Your task to perform on an android device: change timer sound Image 0: 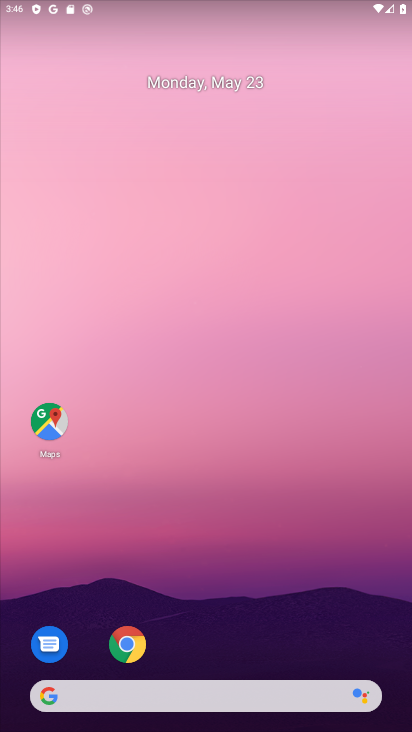
Step 0: click (322, 72)
Your task to perform on an android device: change timer sound Image 1: 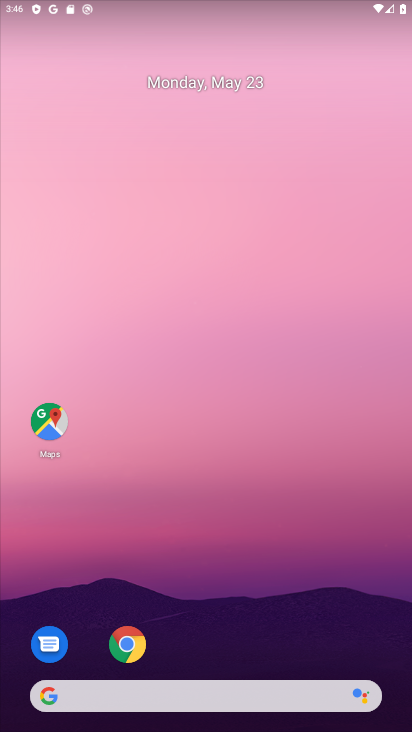
Step 1: drag from (243, 640) to (220, 86)
Your task to perform on an android device: change timer sound Image 2: 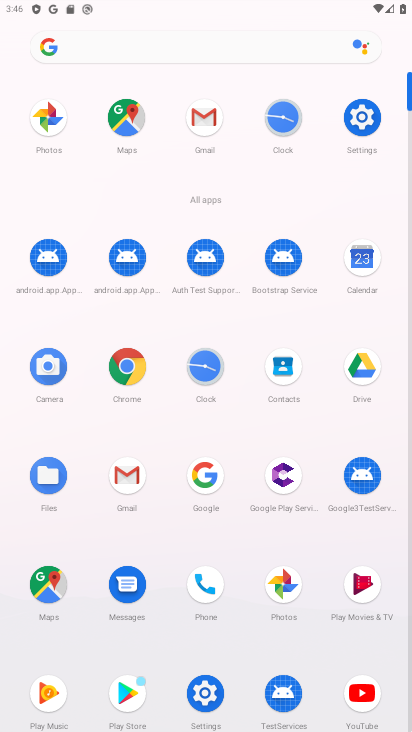
Step 2: click (297, 127)
Your task to perform on an android device: change timer sound Image 3: 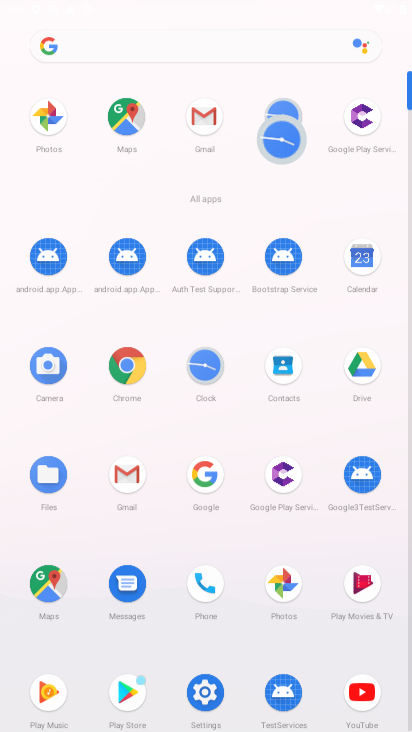
Step 3: click (289, 122)
Your task to perform on an android device: change timer sound Image 4: 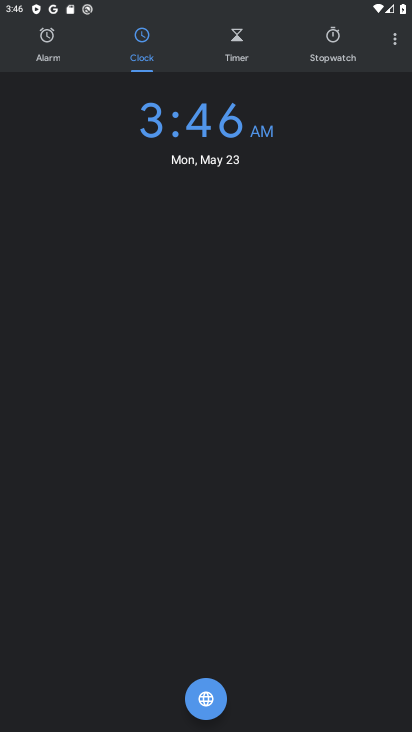
Step 4: click (398, 53)
Your task to perform on an android device: change timer sound Image 5: 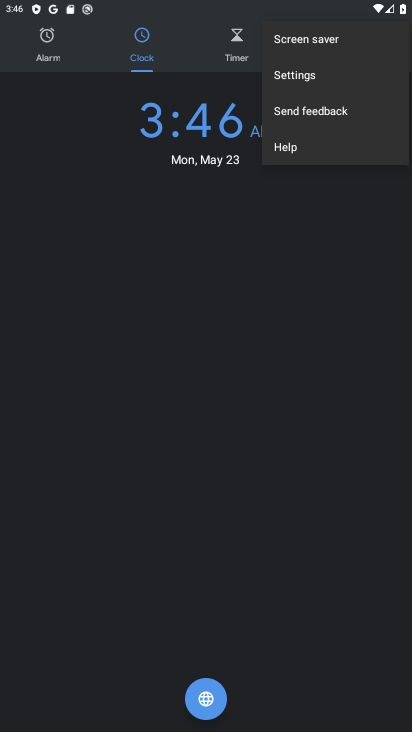
Step 5: click (330, 78)
Your task to perform on an android device: change timer sound Image 6: 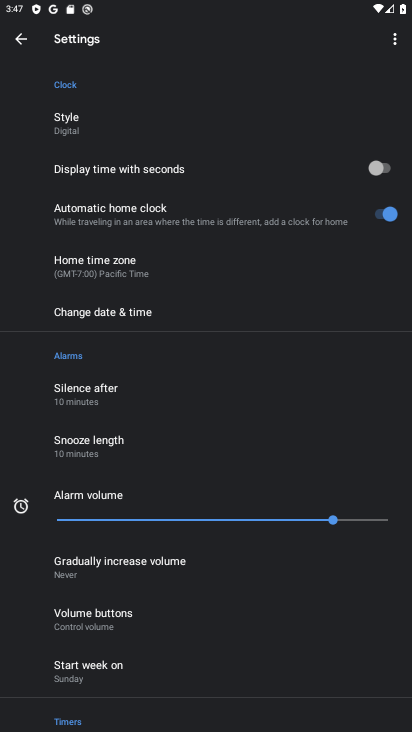
Step 6: drag from (191, 530) to (178, 58)
Your task to perform on an android device: change timer sound Image 7: 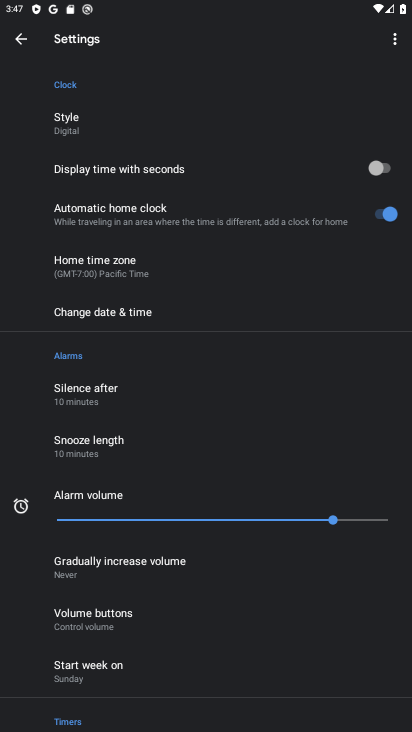
Step 7: drag from (240, 628) to (228, 153)
Your task to perform on an android device: change timer sound Image 8: 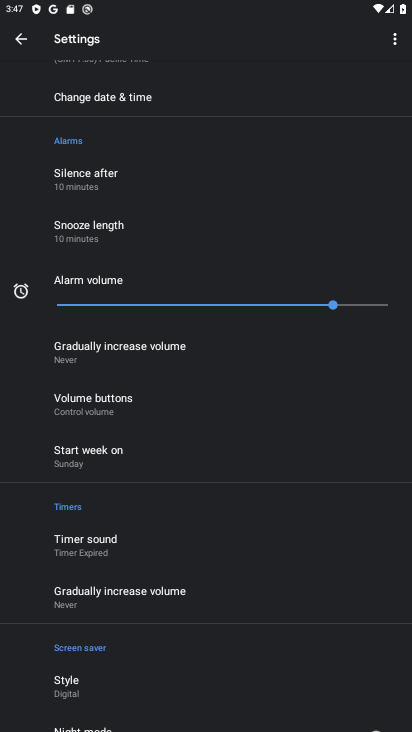
Step 8: click (180, 545)
Your task to perform on an android device: change timer sound Image 9: 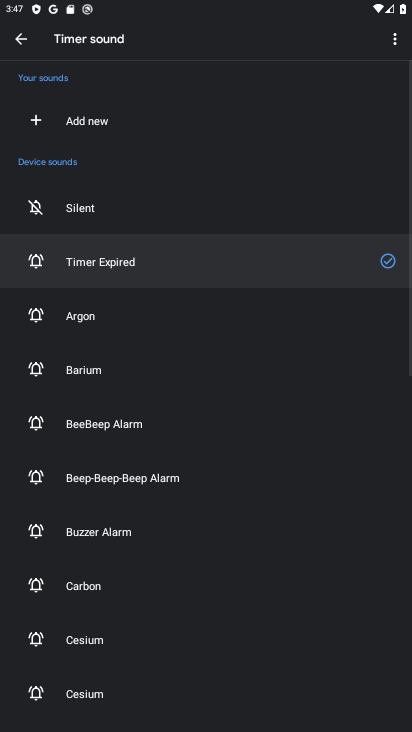
Step 9: click (197, 528)
Your task to perform on an android device: change timer sound Image 10: 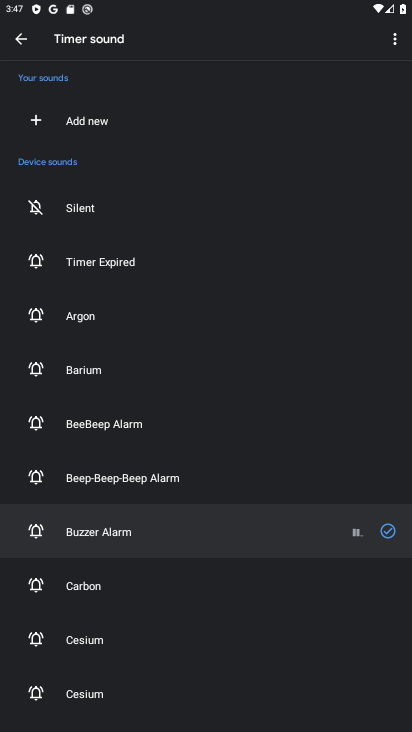
Step 10: task complete